Your task to perform on an android device: What is the news today? Image 0: 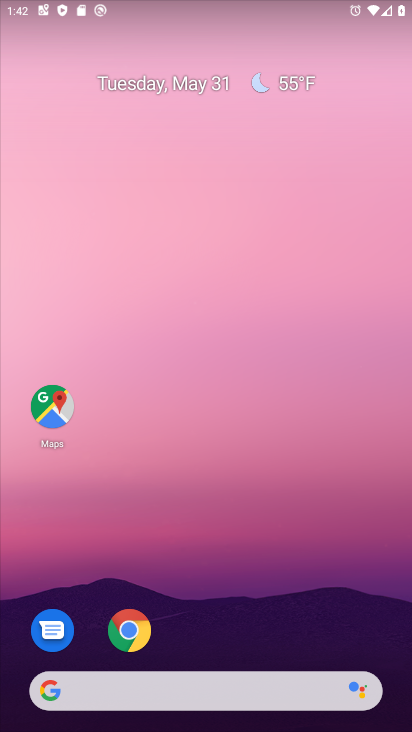
Step 0: drag from (190, 674) to (234, 265)
Your task to perform on an android device: What is the news today? Image 1: 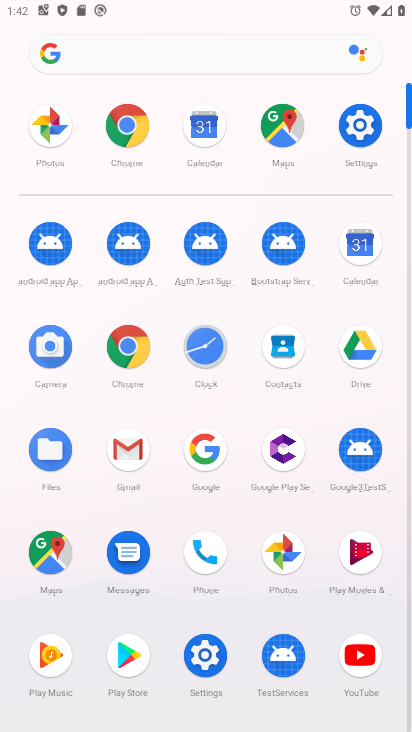
Step 1: click (204, 441)
Your task to perform on an android device: What is the news today? Image 2: 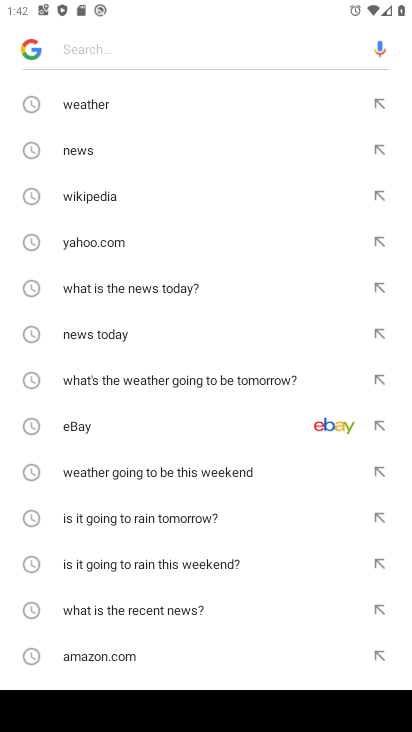
Step 2: click (105, 52)
Your task to perform on an android device: What is the news today? Image 3: 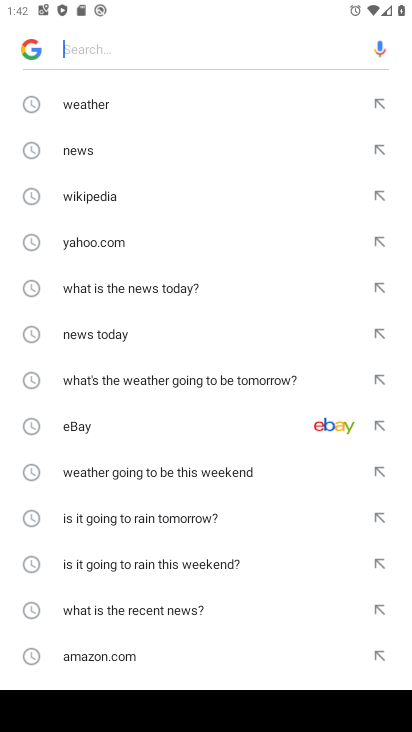
Step 3: click (118, 337)
Your task to perform on an android device: What is the news today? Image 4: 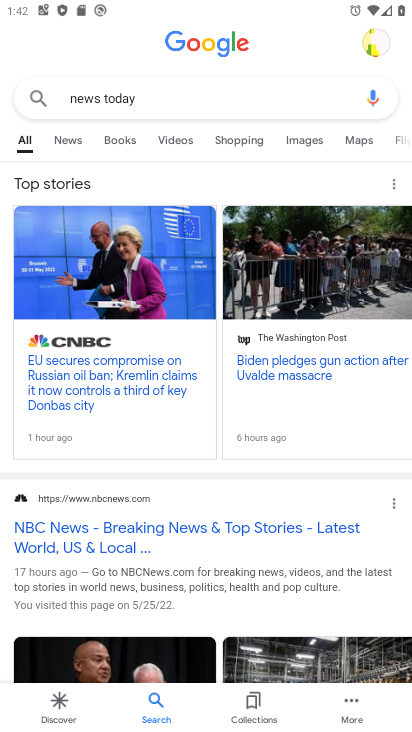
Step 4: task complete